Your task to perform on an android device: open a bookmark in the chrome app Image 0: 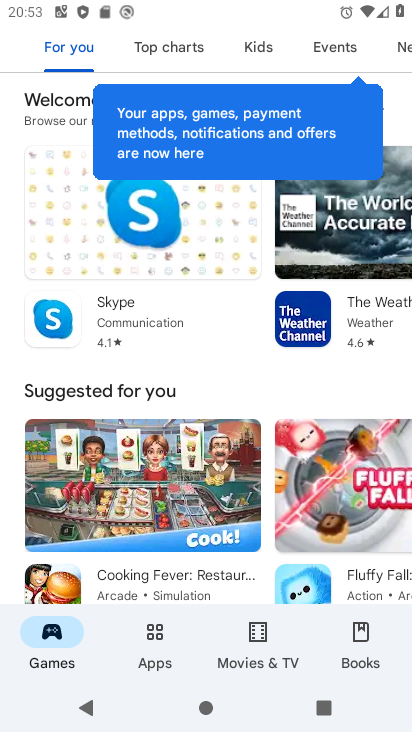
Step 0: press home button
Your task to perform on an android device: open a bookmark in the chrome app Image 1: 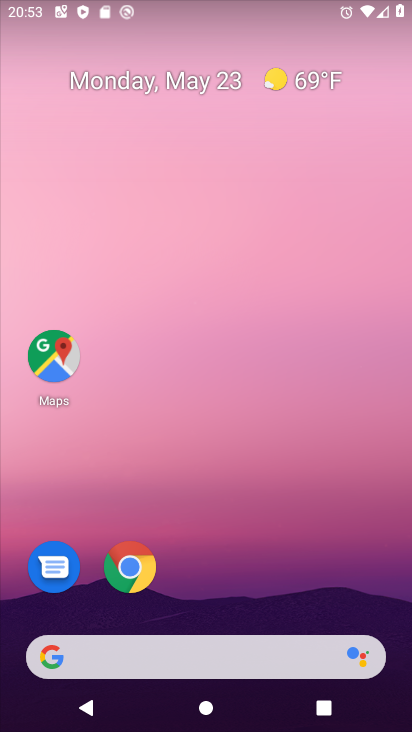
Step 1: drag from (216, 591) to (244, 62)
Your task to perform on an android device: open a bookmark in the chrome app Image 2: 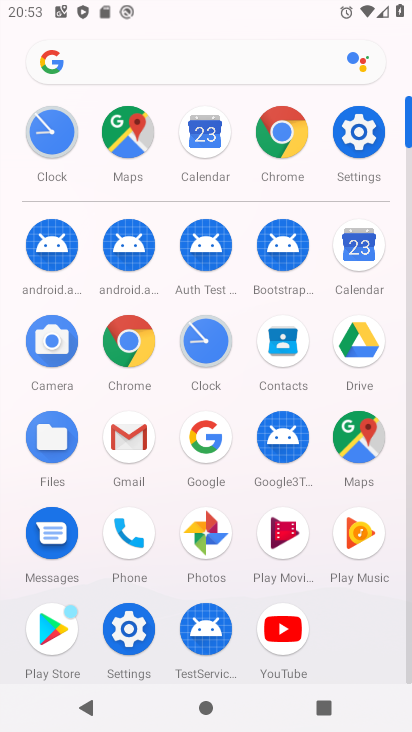
Step 2: click (120, 356)
Your task to perform on an android device: open a bookmark in the chrome app Image 3: 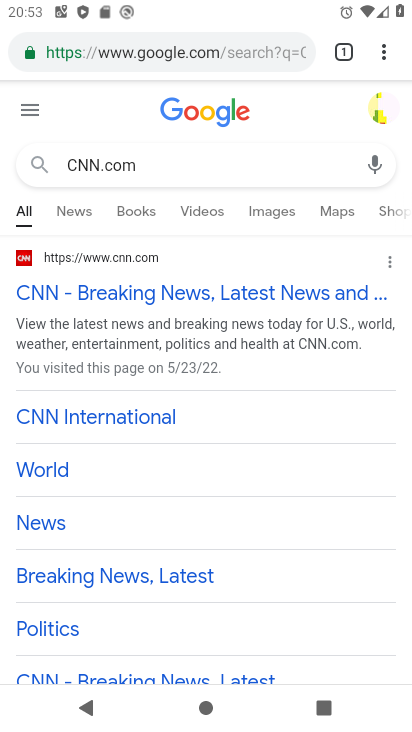
Step 3: click (381, 53)
Your task to perform on an android device: open a bookmark in the chrome app Image 4: 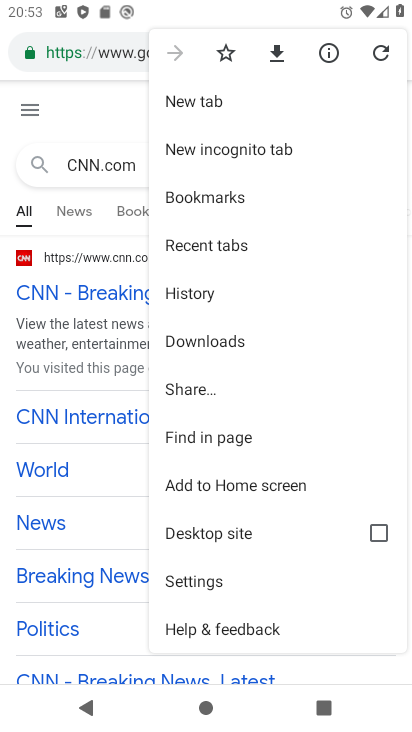
Step 4: click (224, 194)
Your task to perform on an android device: open a bookmark in the chrome app Image 5: 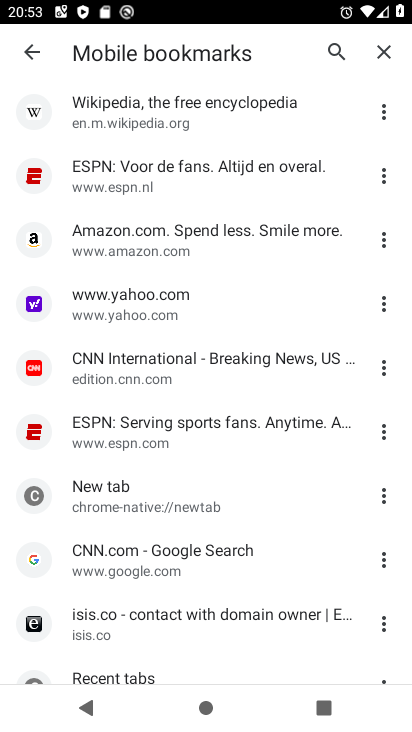
Step 5: click (210, 423)
Your task to perform on an android device: open a bookmark in the chrome app Image 6: 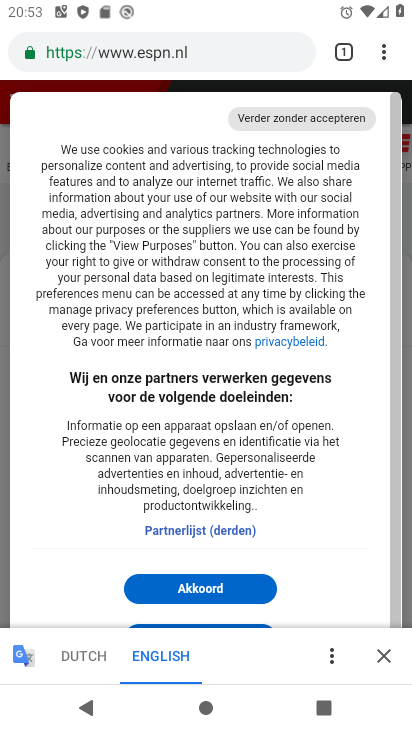
Step 6: task complete